Your task to perform on an android device: Open calendar and show me the fourth week of next month Image 0: 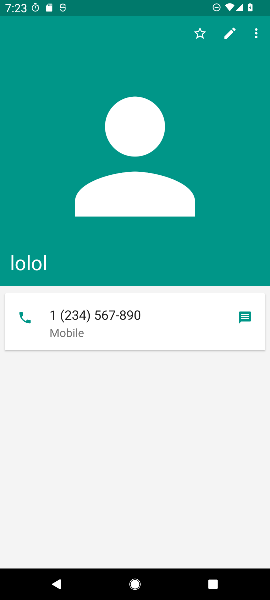
Step 0: press home button
Your task to perform on an android device: Open calendar and show me the fourth week of next month Image 1: 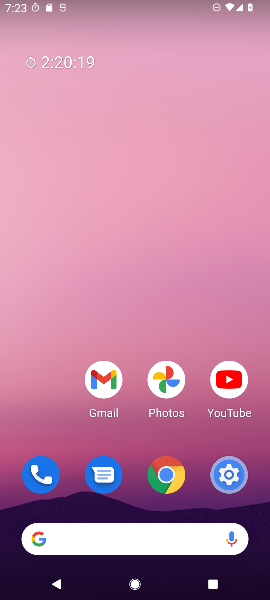
Step 1: drag from (34, 427) to (44, 157)
Your task to perform on an android device: Open calendar and show me the fourth week of next month Image 2: 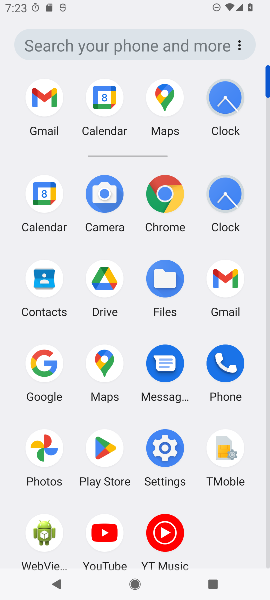
Step 2: click (46, 194)
Your task to perform on an android device: Open calendar and show me the fourth week of next month Image 3: 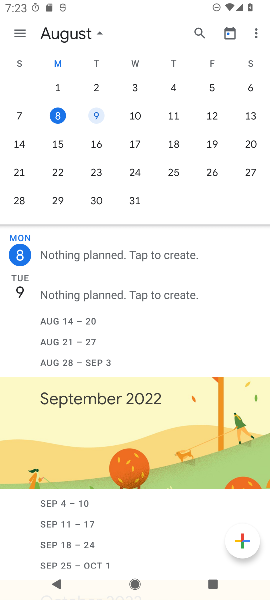
Step 3: drag from (254, 97) to (105, 97)
Your task to perform on an android device: Open calendar and show me the fourth week of next month Image 4: 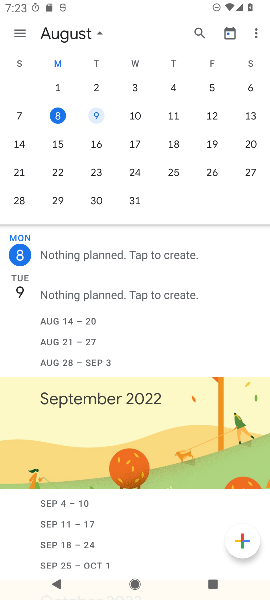
Step 4: drag from (254, 103) to (12, 92)
Your task to perform on an android device: Open calendar and show me the fourth week of next month Image 5: 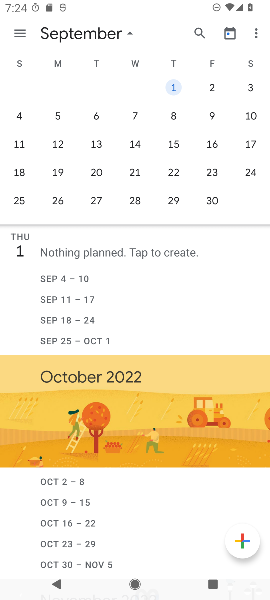
Step 5: click (52, 169)
Your task to perform on an android device: Open calendar and show me the fourth week of next month Image 6: 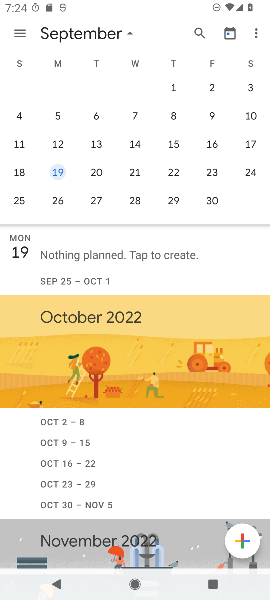
Step 6: task complete